Your task to perform on an android device: Go to ESPN.com Image 0: 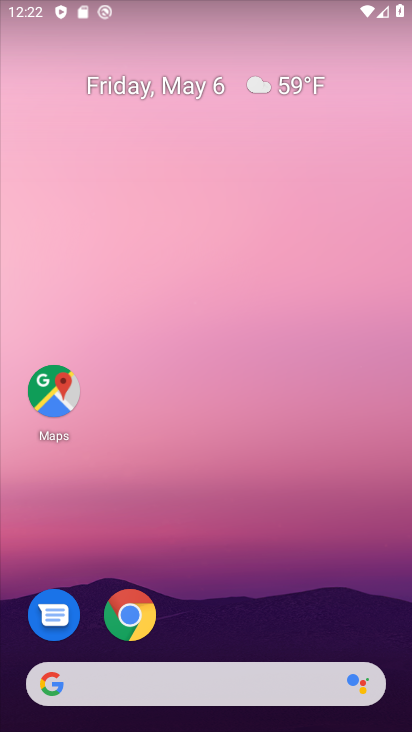
Step 0: drag from (254, 514) to (266, 396)
Your task to perform on an android device: Go to ESPN.com Image 1: 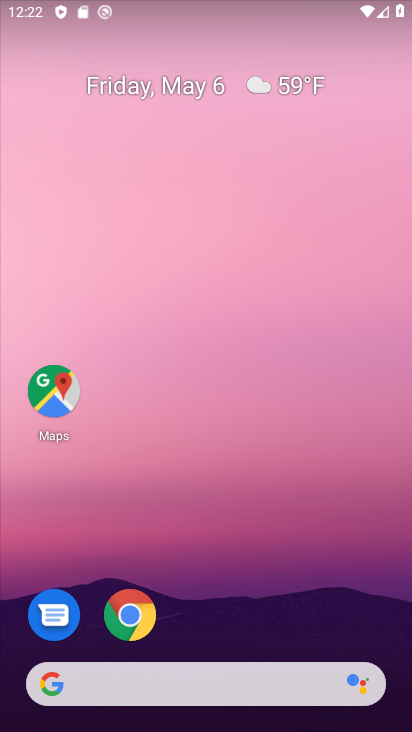
Step 1: click (231, 685)
Your task to perform on an android device: Go to ESPN.com Image 2: 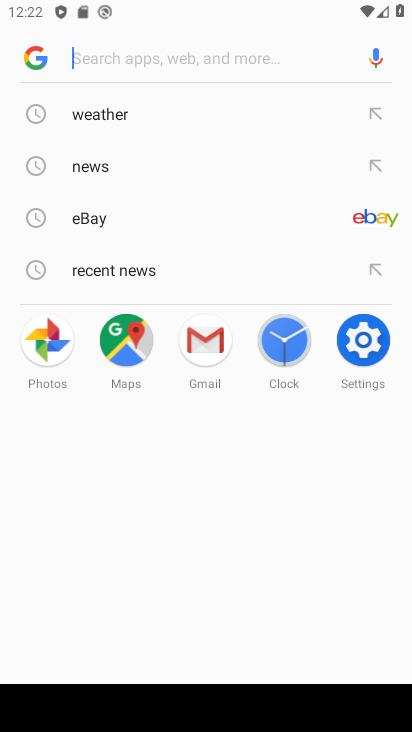
Step 2: type "espn.com"
Your task to perform on an android device: Go to ESPN.com Image 3: 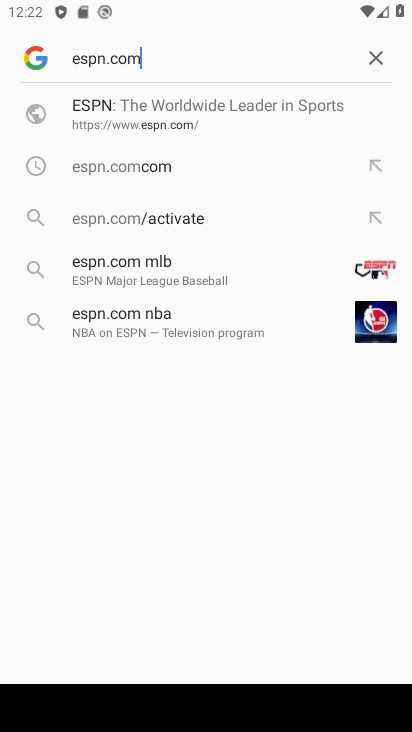
Step 3: click (230, 108)
Your task to perform on an android device: Go to ESPN.com Image 4: 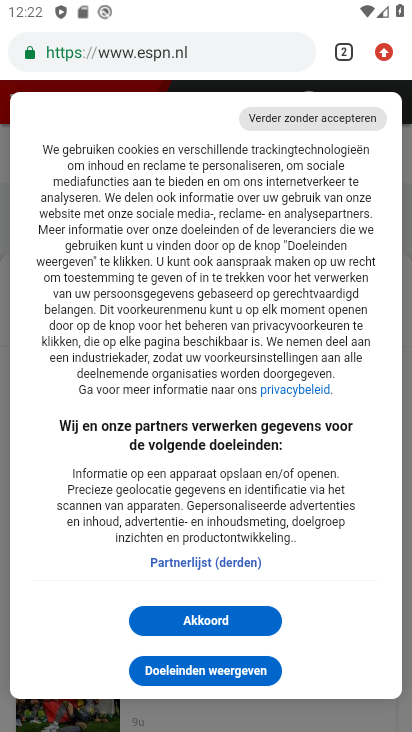
Step 4: task complete